Your task to perform on an android device: Open Google Chrome and click the shortcut for Amazon.com Image 0: 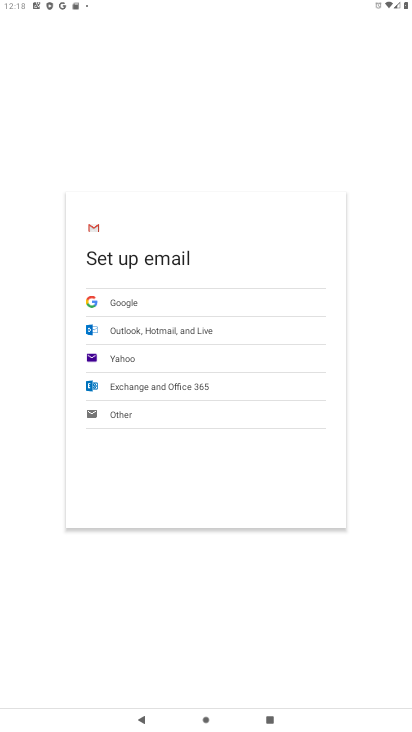
Step 0: press home button
Your task to perform on an android device: Open Google Chrome and click the shortcut for Amazon.com Image 1: 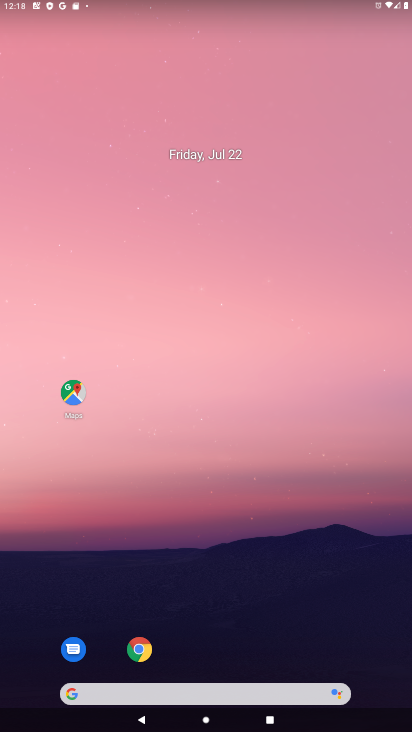
Step 1: drag from (321, 536) to (249, 4)
Your task to perform on an android device: Open Google Chrome and click the shortcut for Amazon.com Image 2: 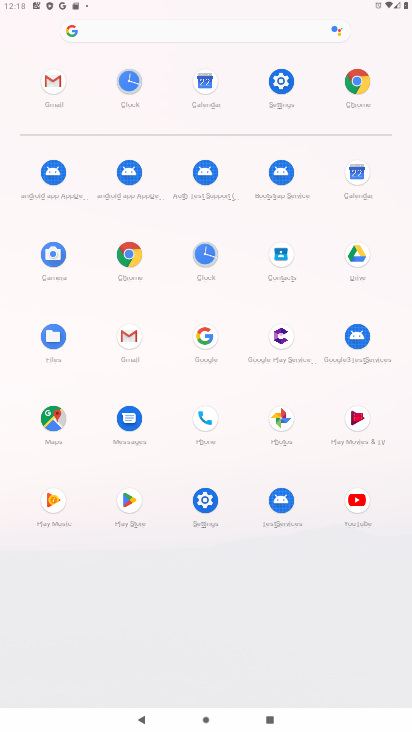
Step 2: click (351, 79)
Your task to perform on an android device: Open Google Chrome and click the shortcut for Amazon.com Image 3: 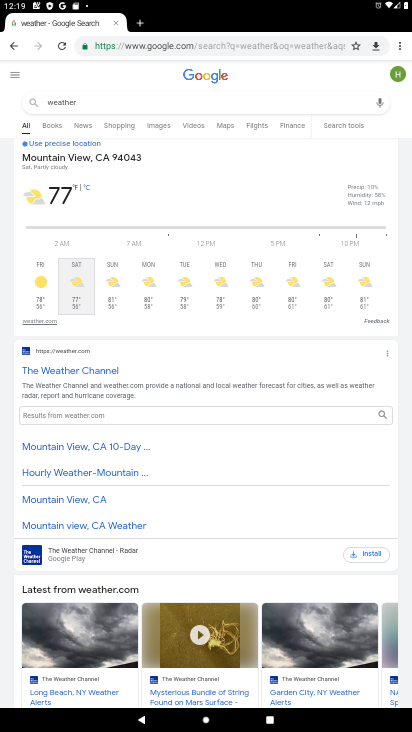
Step 3: click (141, 20)
Your task to perform on an android device: Open Google Chrome and click the shortcut for Amazon.com Image 4: 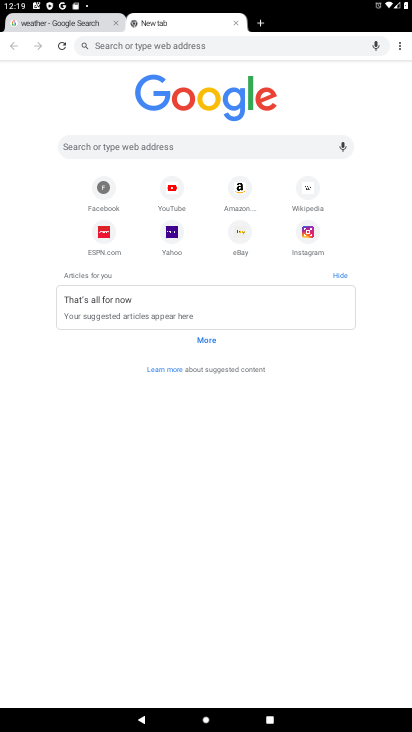
Step 4: click (245, 191)
Your task to perform on an android device: Open Google Chrome and click the shortcut for Amazon.com Image 5: 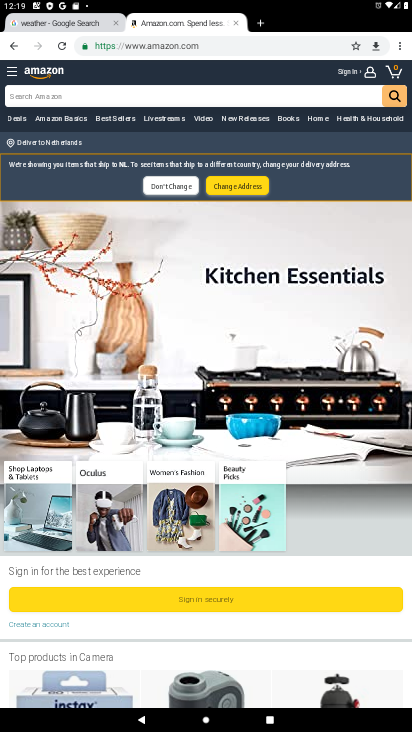
Step 5: task complete